Your task to perform on an android device: Clear the shopping cart on newegg.com. Image 0: 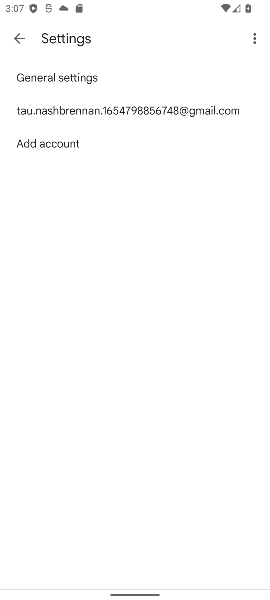
Step 0: press home button
Your task to perform on an android device: Clear the shopping cart on newegg.com. Image 1: 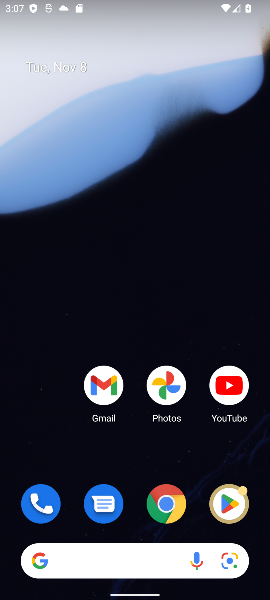
Step 1: drag from (127, 485) to (147, 149)
Your task to perform on an android device: Clear the shopping cart on newegg.com. Image 2: 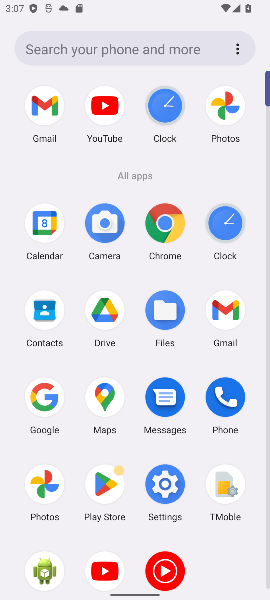
Step 2: click (163, 224)
Your task to perform on an android device: Clear the shopping cart on newegg.com. Image 3: 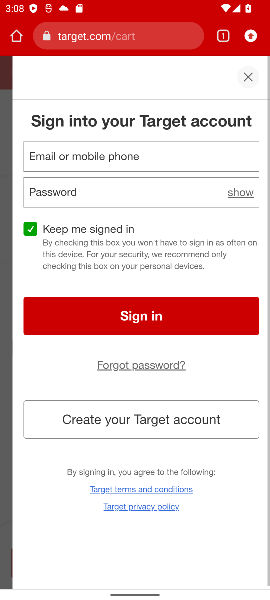
Step 3: click (86, 39)
Your task to perform on an android device: Clear the shopping cart on newegg.com. Image 4: 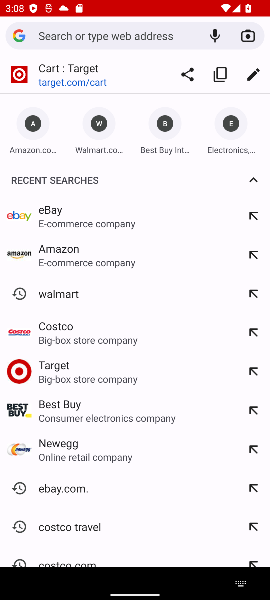
Step 4: type "newegg.com."
Your task to perform on an android device: Clear the shopping cart on newegg.com. Image 5: 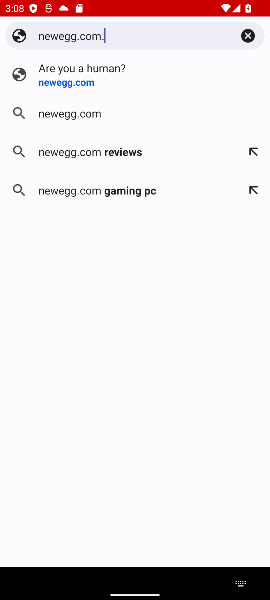
Step 5: press enter
Your task to perform on an android device: Clear the shopping cart on newegg.com. Image 6: 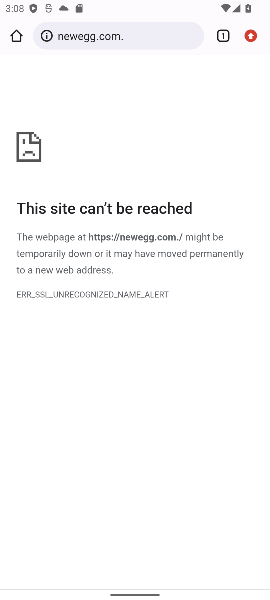
Step 6: task complete